Your task to perform on an android device: empty trash in google photos Image 0: 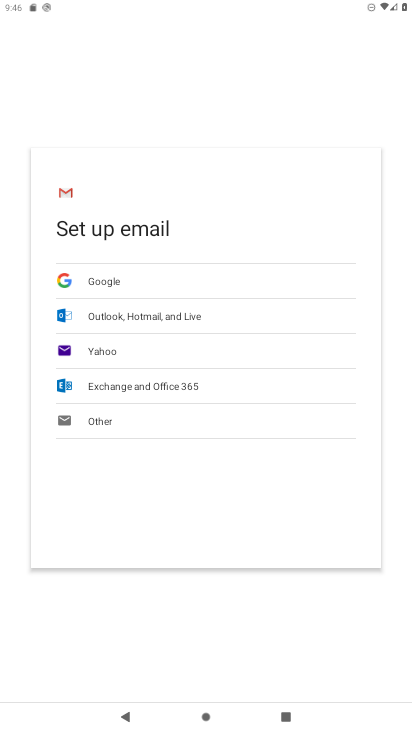
Step 0: press home button
Your task to perform on an android device: empty trash in google photos Image 1: 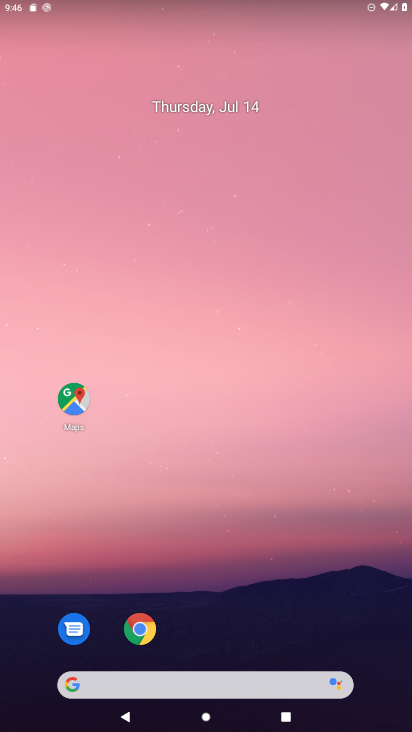
Step 1: drag from (272, 627) to (274, 208)
Your task to perform on an android device: empty trash in google photos Image 2: 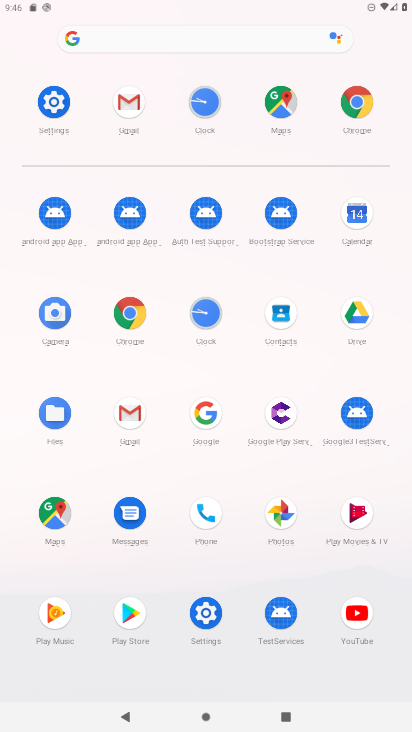
Step 2: click (283, 510)
Your task to perform on an android device: empty trash in google photos Image 3: 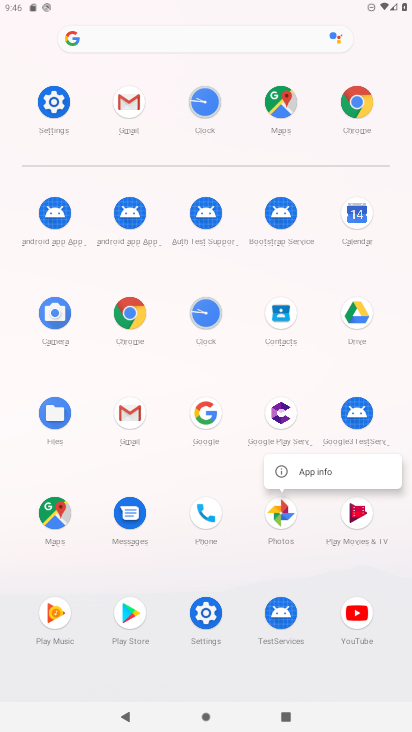
Step 3: click (283, 510)
Your task to perform on an android device: empty trash in google photos Image 4: 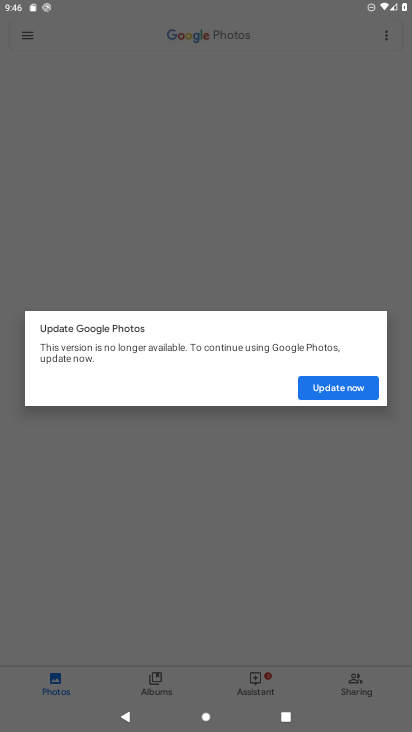
Step 4: click (366, 377)
Your task to perform on an android device: empty trash in google photos Image 5: 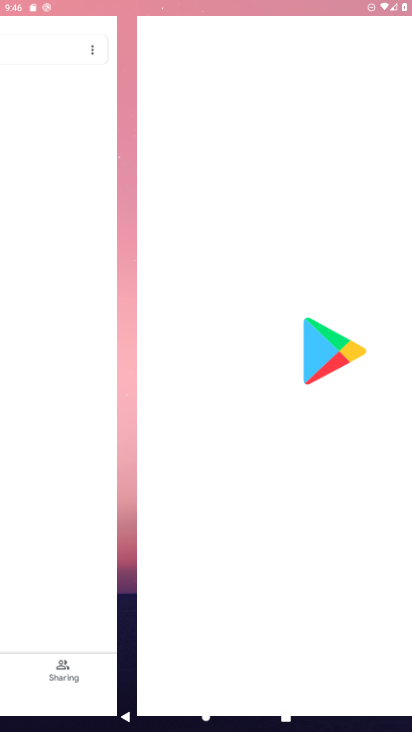
Step 5: click (21, 33)
Your task to perform on an android device: empty trash in google photos Image 6: 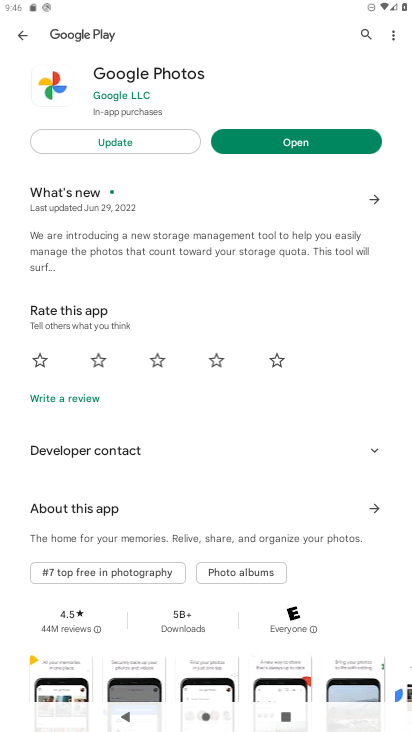
Step 6: click (156, 136)
Your task to perform on an android device: empty trash in google photos Image 7: 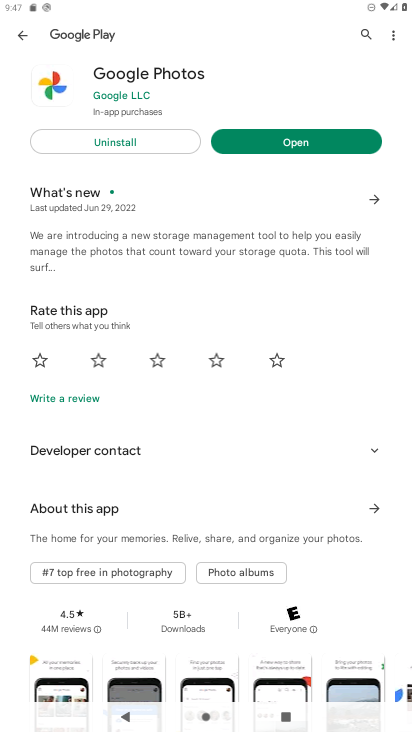
Step 7: click (308, 149)
Your task to perform on an android device: empty trash in google photos Image 8: 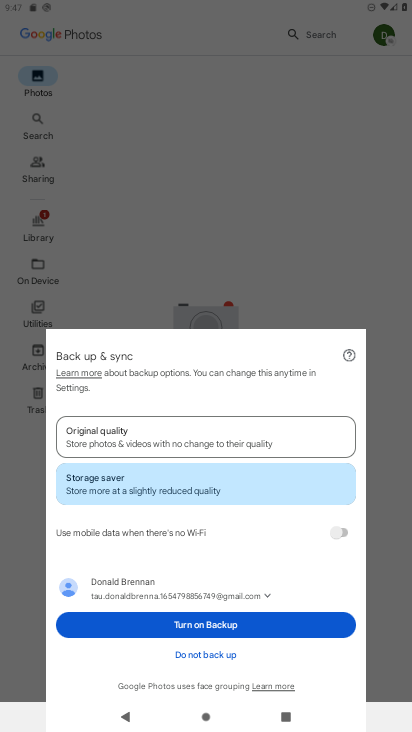
Step 8: click (226, 621)
Your task to perform on an android device: empty trash in google photos Image 9: 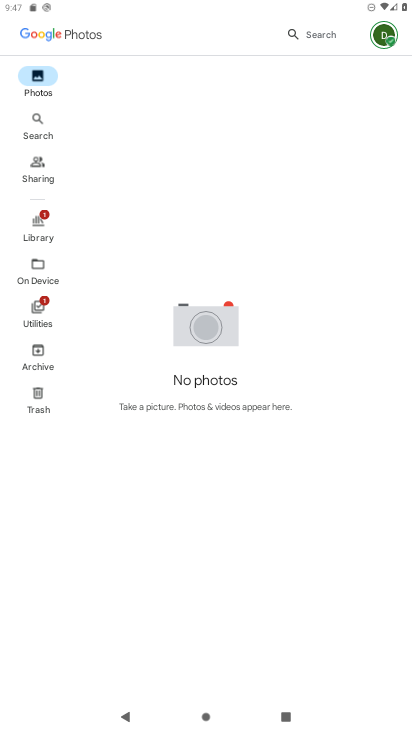
Step 9: click (36, 399)
Your task to perform on an android device: empty trash in google photos Image 10: 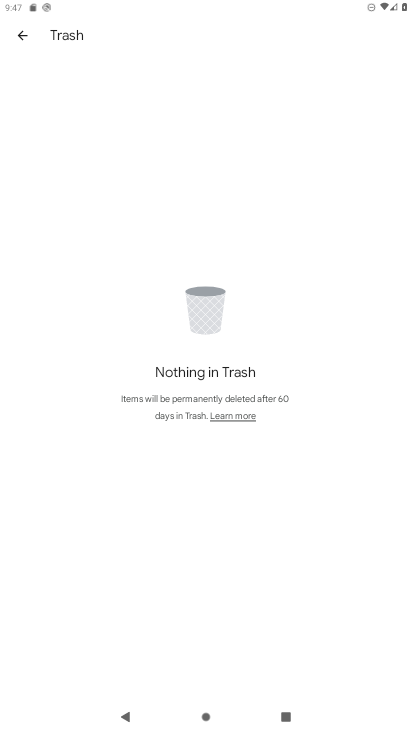
Step 10: task complete